Your task to perform on an android device: toggle javascript in the chrome app Image 0: 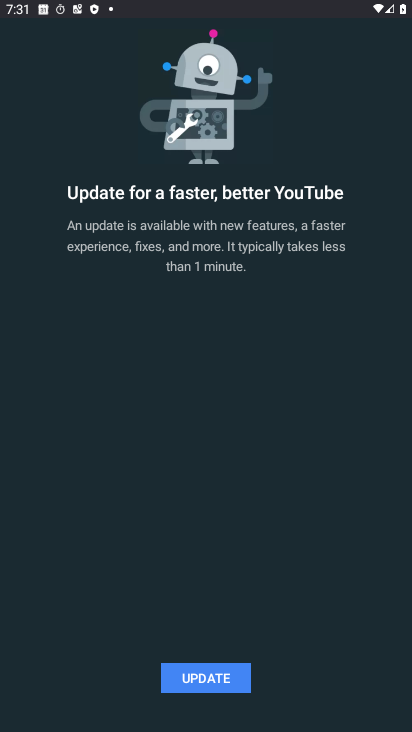
Step 0: press home button
Your task to perform on an android device: toggle javascript in the chrome app Image 1: 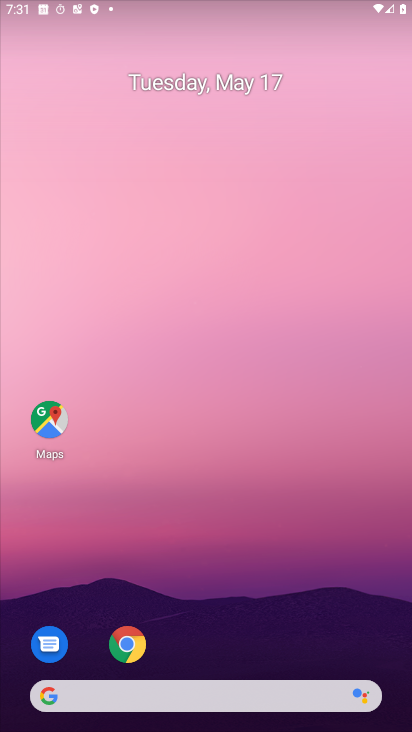
Step 1: drag from (363, 634) to (256, 34)
Your task to perform on an android device: toggle javascript in the chrome app Image 2: 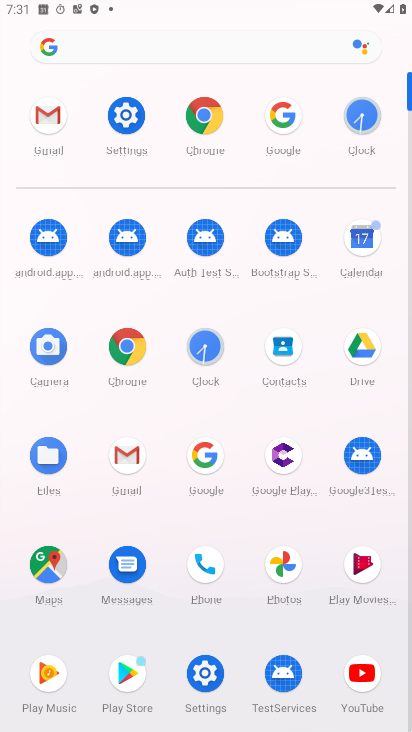
Step 2: click (207, 125)
Your task to perform on an android device: toggle javascript in the chrome app Image 3: 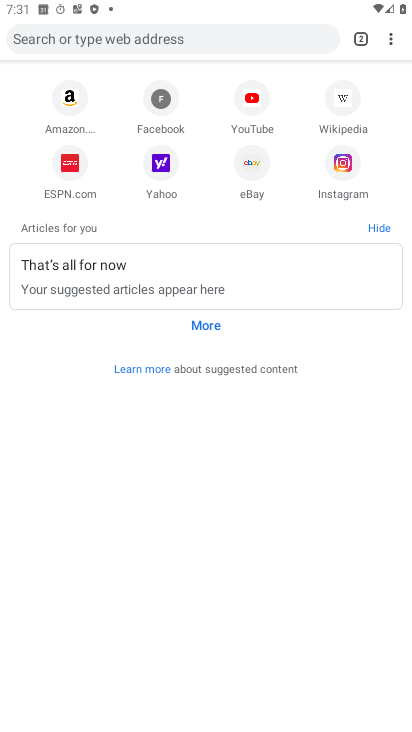
Step 3: click (393, 37)
Your task to perform on an android device: toggle javascript in the chrome app Image 4: 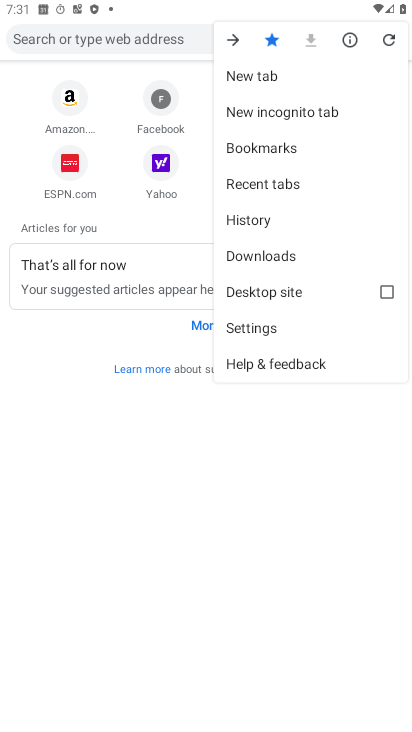
Step 4: click (299, 323)
Your task to perform on an android device: toggle javascript in the chrome app Image 5: 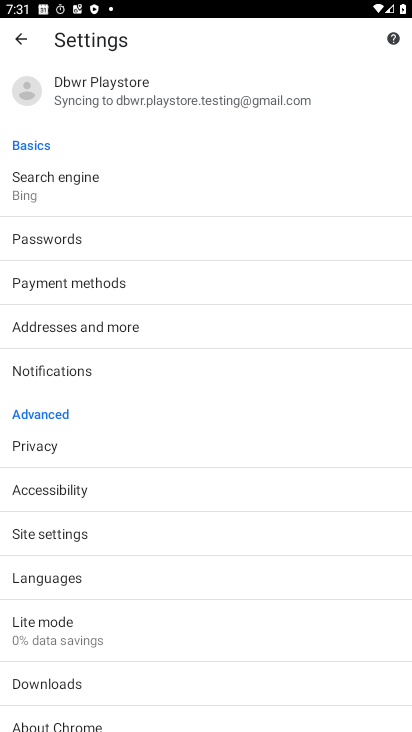
Step 5: click (114, 546)
Your task to perform on an android device: toggle javascript in the chrome app Image 6: 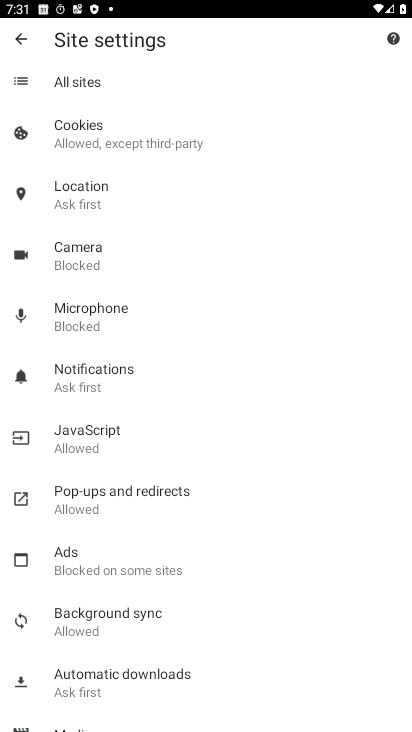
Step 6: click (108, 448)
Your task to perform on an android device: toggle javascript in the chrome app Image 7: 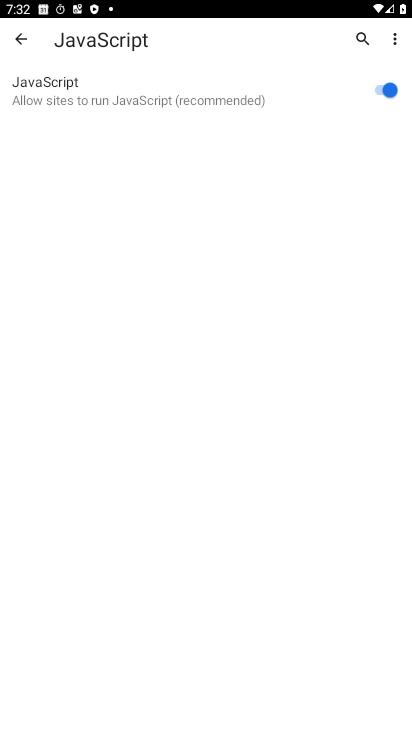
Step 7: click (335, 89)
Your task to perform on an android device: toggle javascript in the chrome app Image 8: 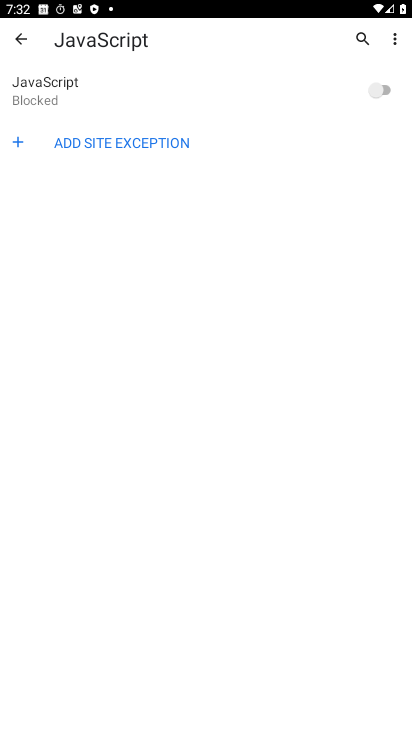
Step 8: task complete